Your task to perform on an android device: turn on bluetooth scan Image 0: 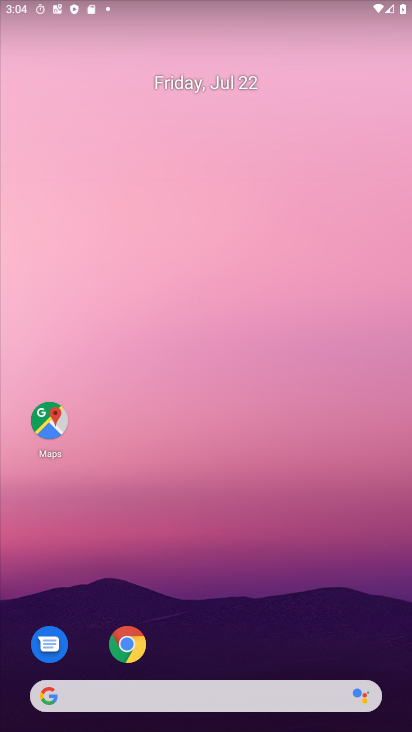
Step 0: drag from (204, 638) to (195, 98)
Your task to perform on an android device: turn on bluetooth scan Image 1: 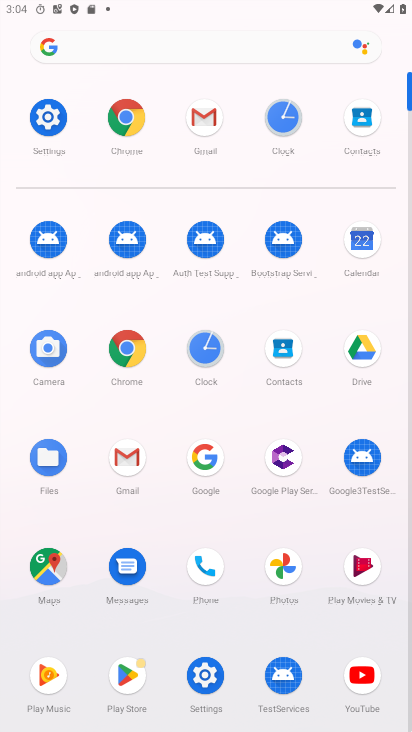
Step 1: click (39, 131)
Your task to perform on an android device: turn on bluetooth scan Image 2: 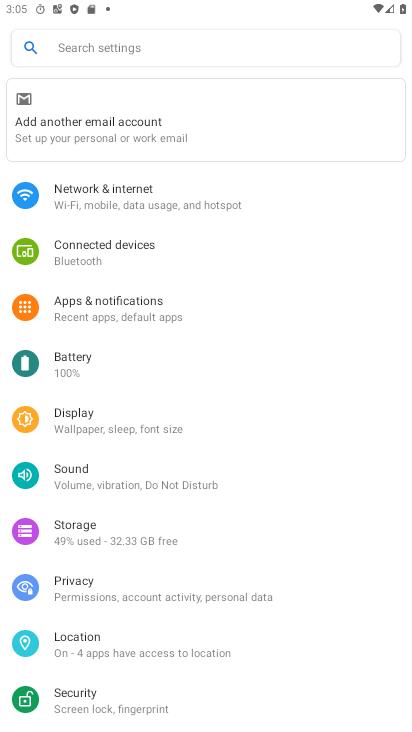
Step 2: click (79, 646)
Your task to perform on an android device: turn on bluetooth scan Image 3: 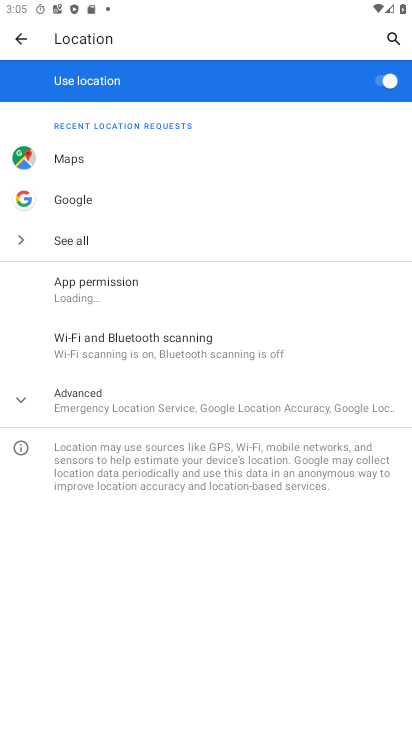
Step 3: click (120, 350)
Your task to perform on an android device: turn on bluetooth scan Image 4: 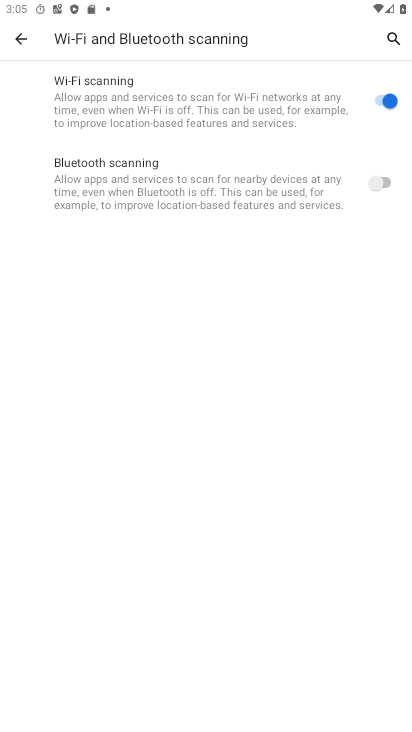
Step 4: click (380, 179)
Your task to perform on an android device: turn on bluetooth scan Image 5: 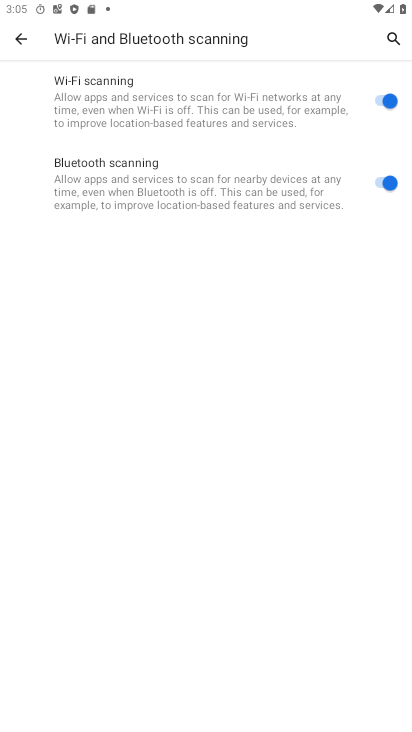
Step 5: task complete